Your task to perform on an android device: open wifi settings Image 0: 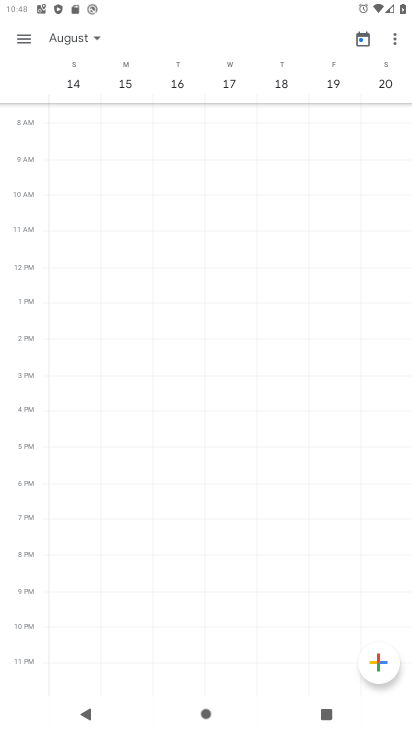
Step 0: press home button
Your task to perform on an android device: open wifi settings Image 1: 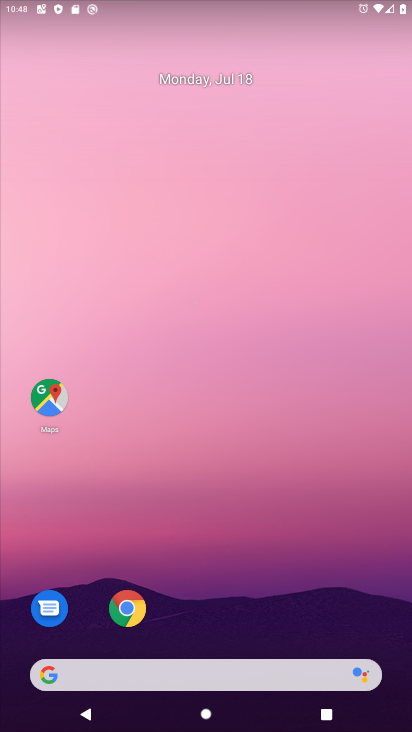
Step 1: drag from (223, 614) to (276, 191)
Your task to perform on an android device: open wifi settings Image 2: 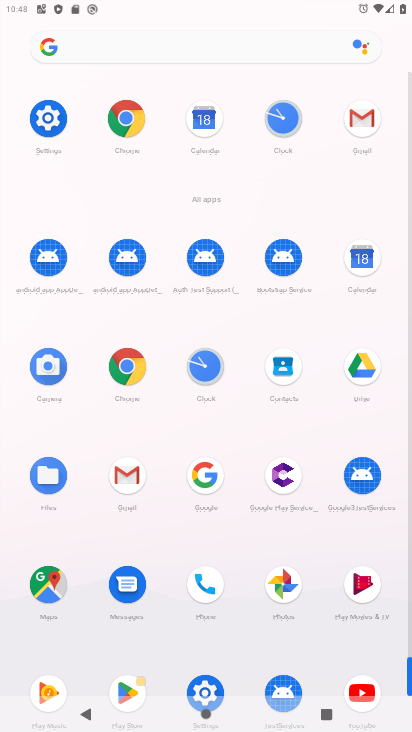
Step 2: click (208, 683)
Your task to perform on an android device: open wifi settings Image 3: 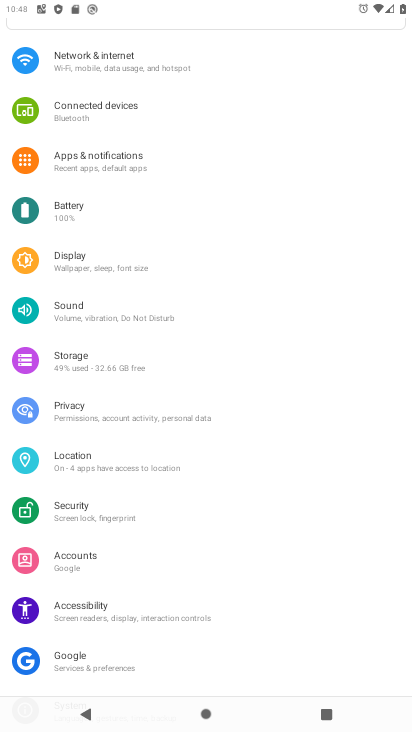
Step 3: click (126, 68)
Your task to perform on an android device: open wifi settings Image 4: 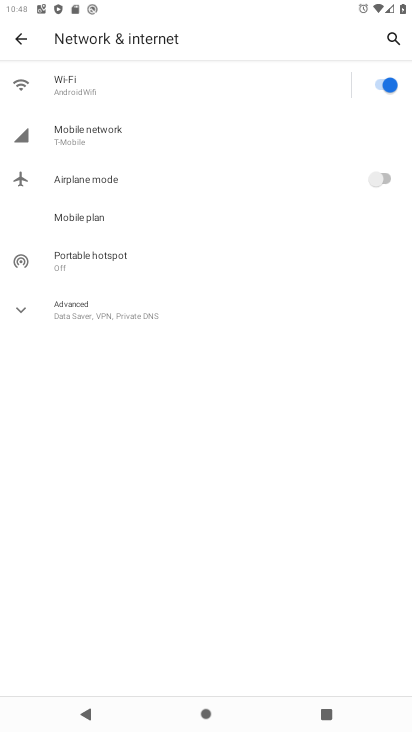
Step 4: click (105, 87)
Your task to perform on an android device: open wifi settings Image 5: 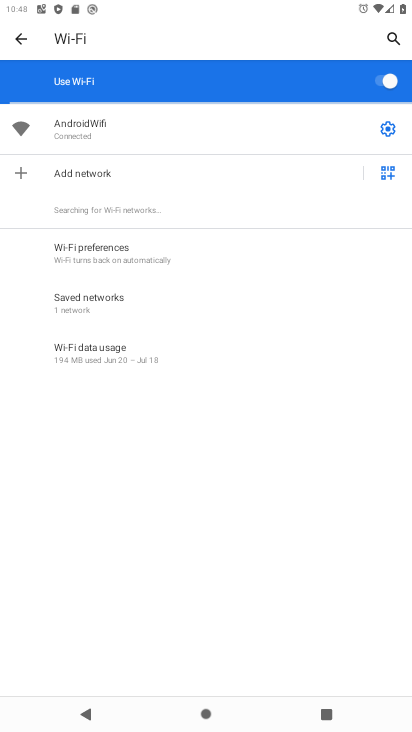
Step 5: task complete